Your task to perform on an android device: Go to display settings Image 0: 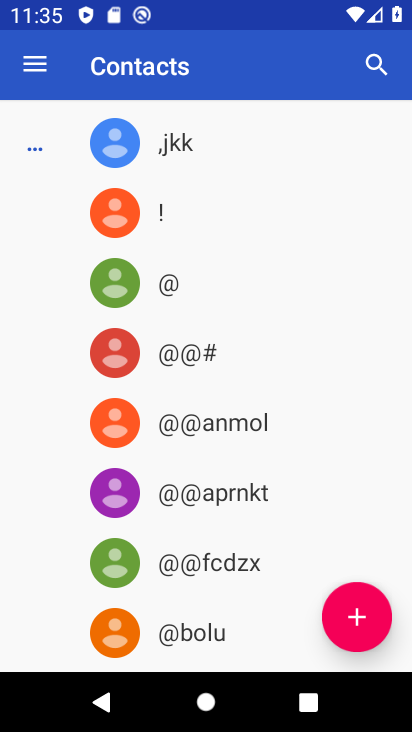
Step 0: press home button
Your task to perform on an android device: Go to display settings Image 1: 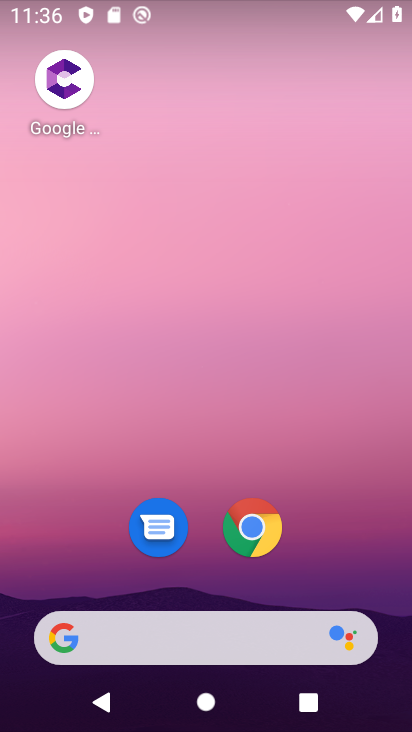
Step 1: drag from (200, 585) to (208, 99)
Your task to perform on an android device: Go to display settings Image 2: 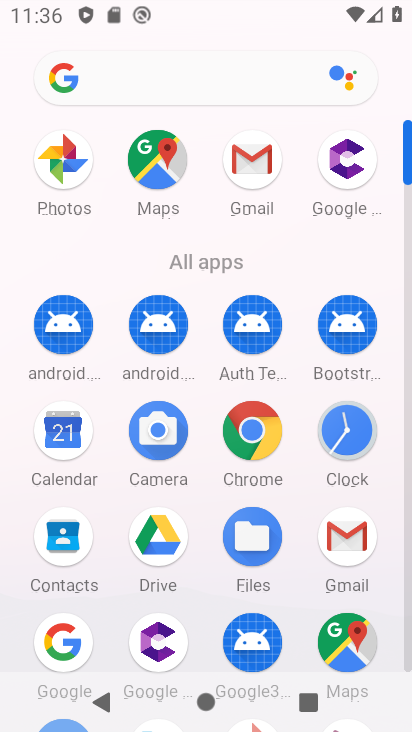
Step 2: drag from (110, 590) to (110, 205)
Your task to perform on an android device: Go to display settings Image 3: 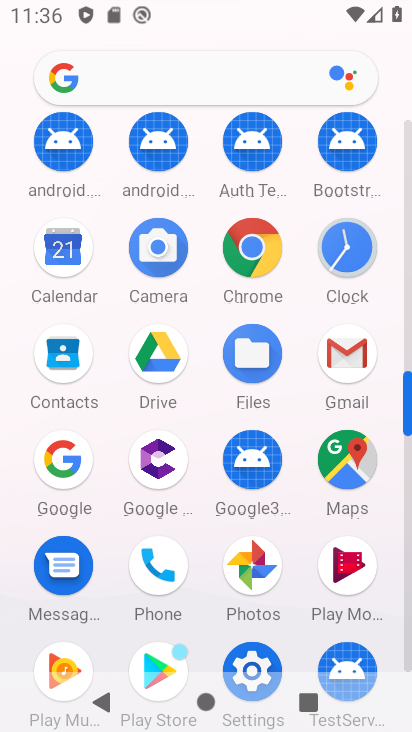
Step 3: click (246, 650)
Your task to perform on an android device: Go to display settings Image 4: 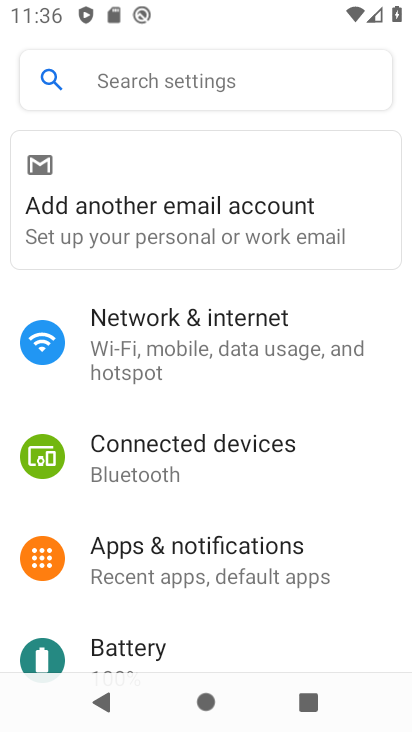
Step 4: drag from (224, 623) to (239, 342)
Your task to perform on an android device: Go to display settings Image 5: 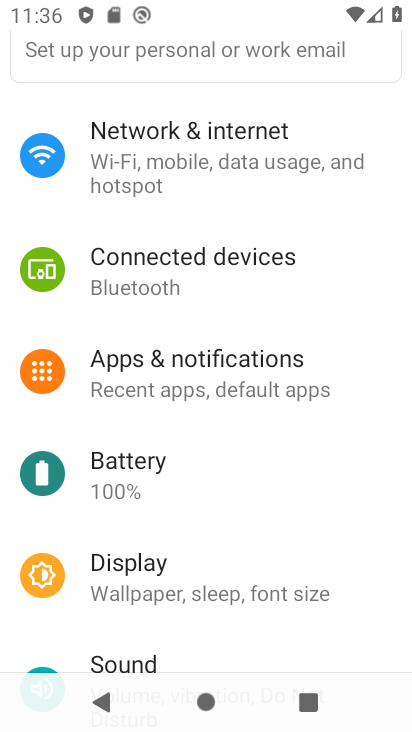
Step 5: click (156, 562)
Your task to perform on an android device: Go to display settings Image 6: 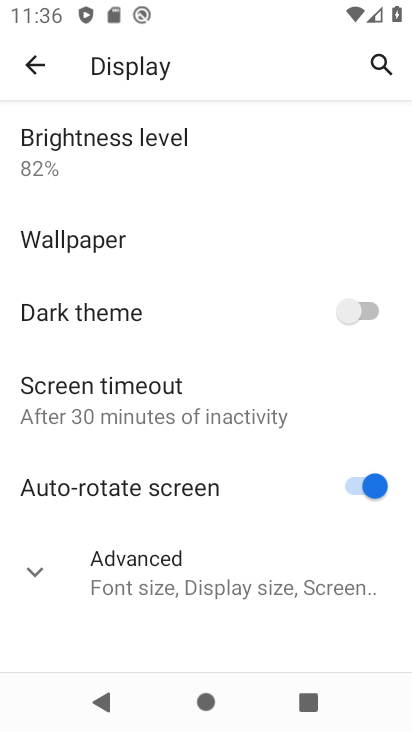
Step 6: task complete